Your task to perform on an android device: find photos in the google photos app Image 0: 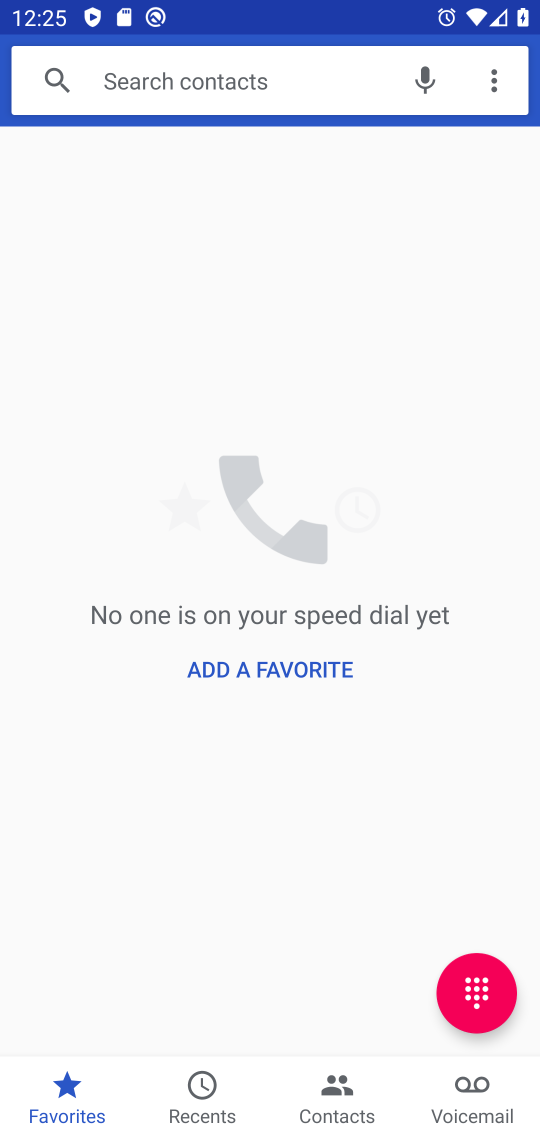
Step 0: press home button
Your task to perform on an android device: find photos in the google photos app Image 1: 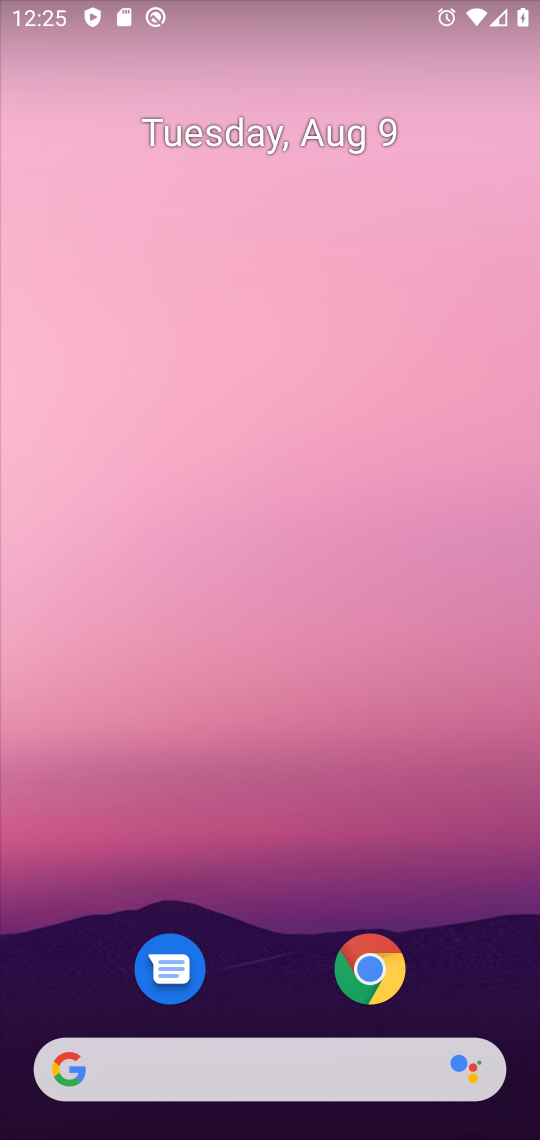
Step 1: drag from (190, 1003) to (214, 552)
Your task to perform on an android device: find photos in the google photos app Image 2: 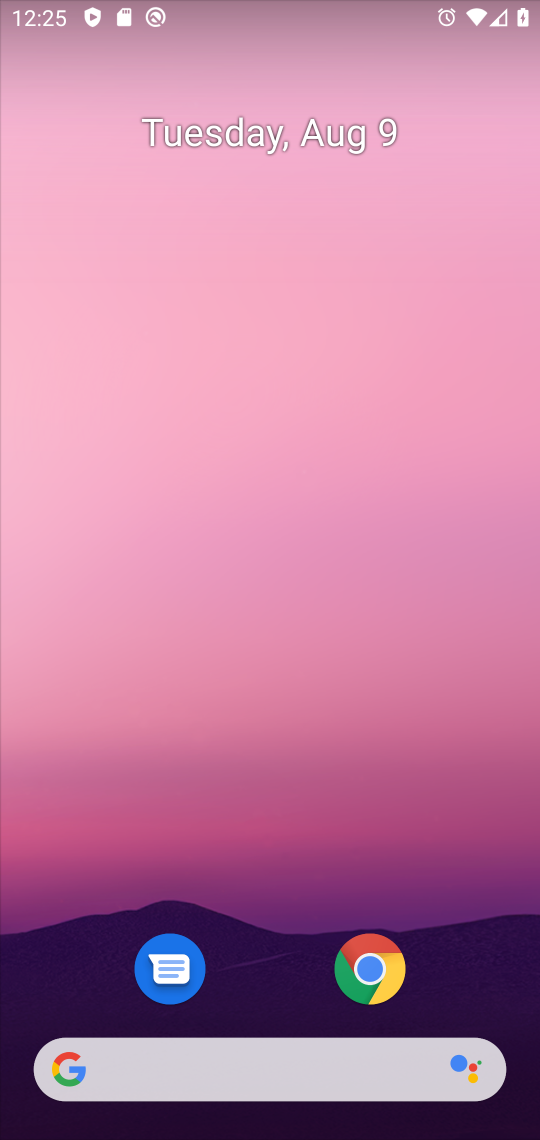
Step 2: drag from (274, 992) to (375, 522)
Your task to perform on an android device: find photos in the google photos app Image 3: 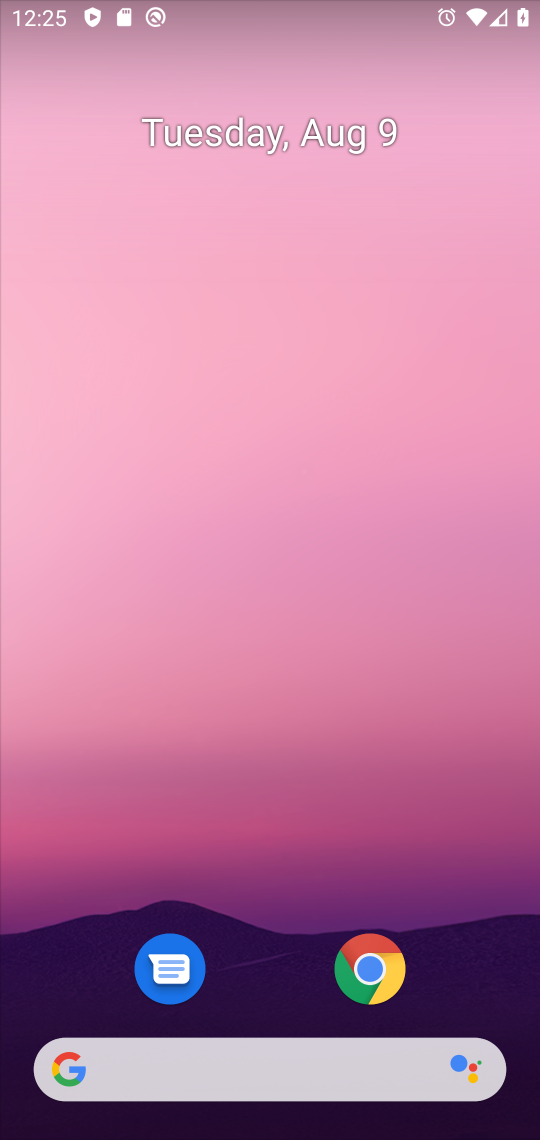
Step 3: drag from (238, 976) to (233, 685)
Your task to perform on an android device: find photos in the google photos app Image 4: 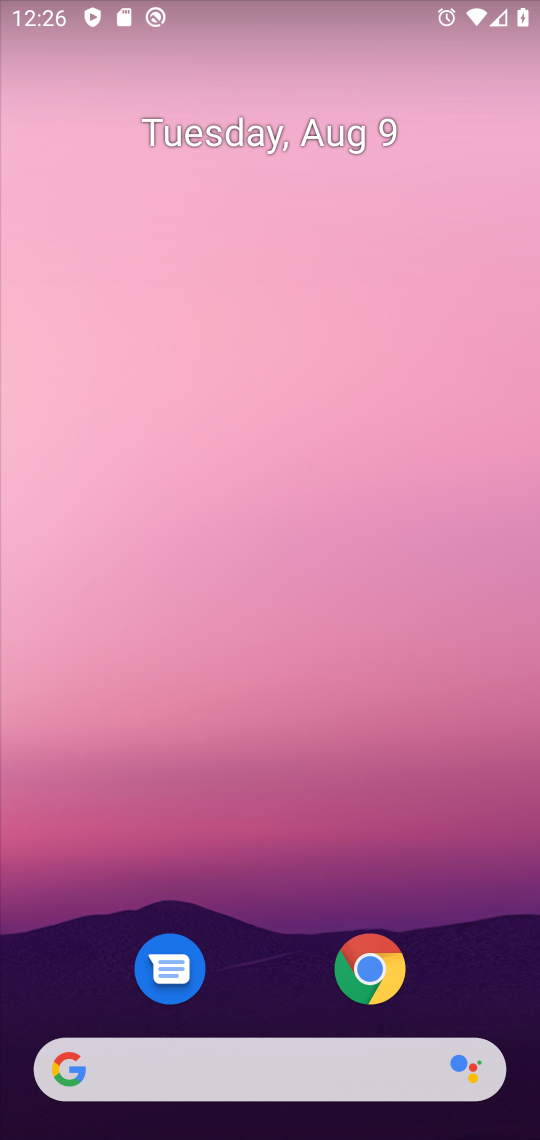
Step 4: drag from (324, 996) to (432, 351)
Your task to perform on an android device: find photos in the google photos app Image 5: 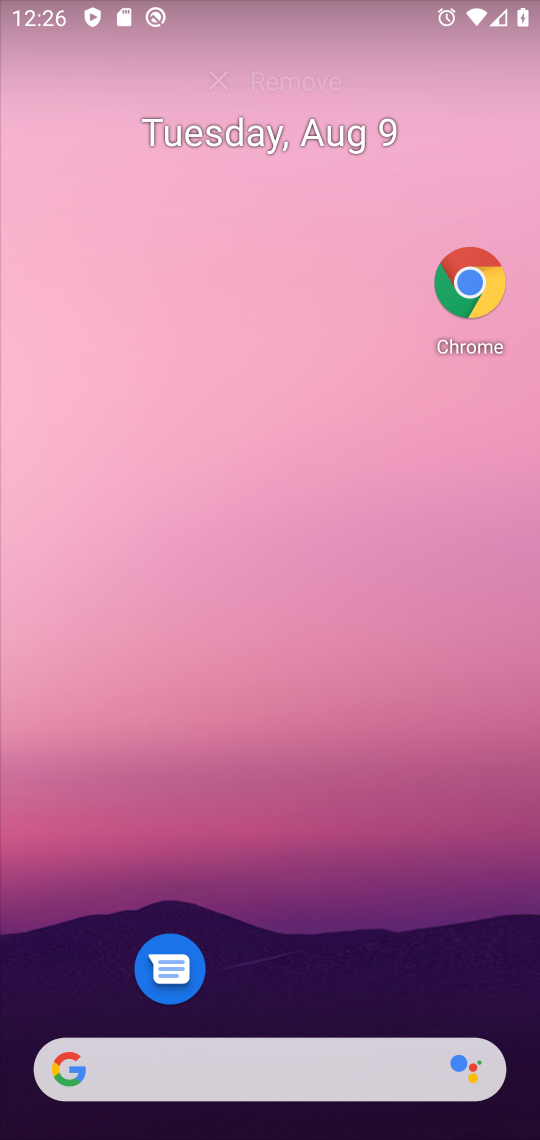
Step 5: drag from (299, 652) to (345, 380)
Your task to perform on an android device: find photos in the google photos app Image 6: 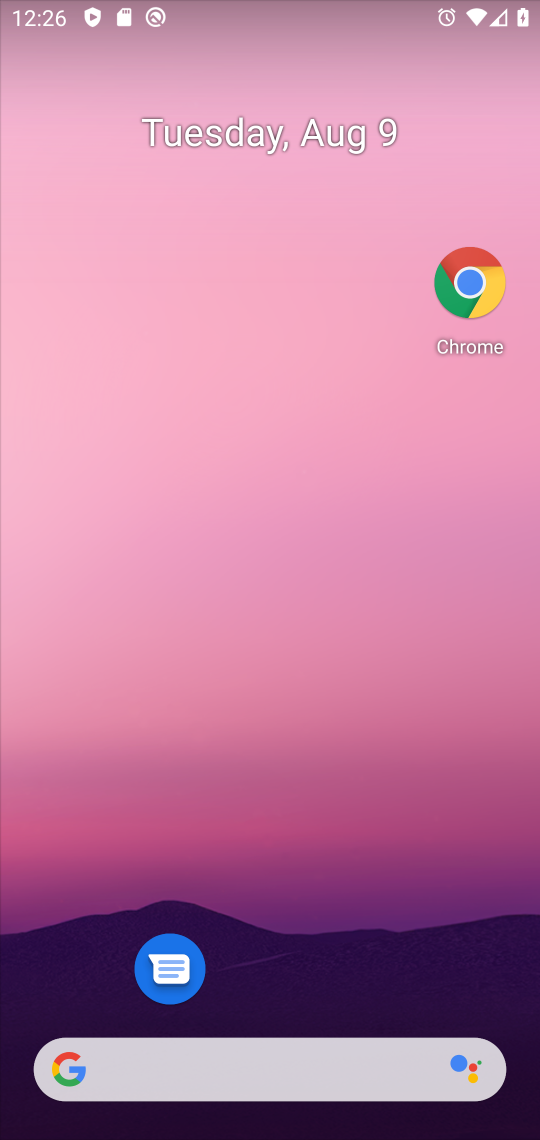
Step 6: drag from (287, 682) to (421, 7)
Your task to perform on an android device: find photos in the google photos app Image 7: 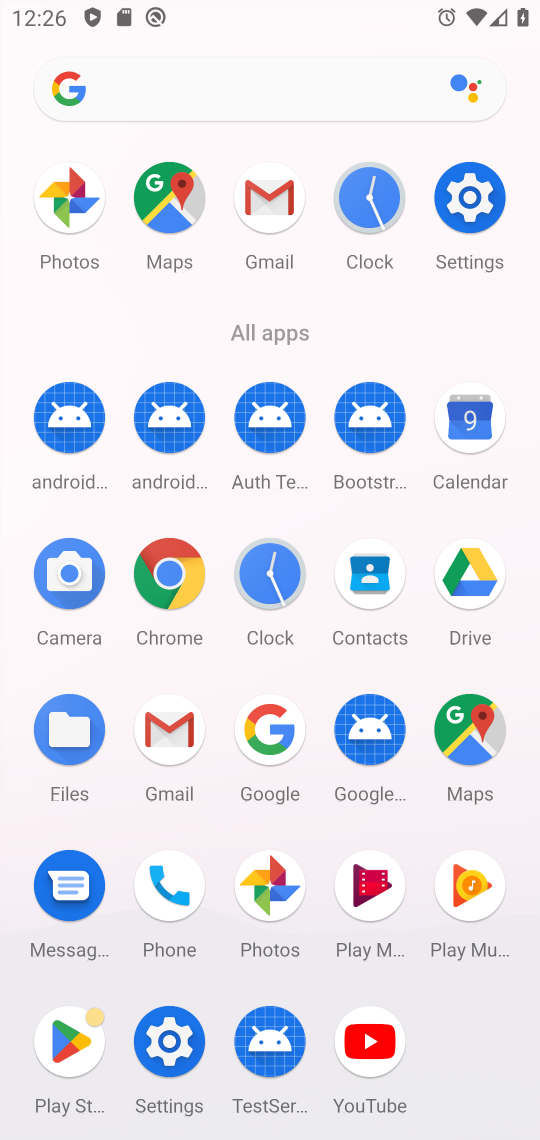
Step 7: click (267, 871)
Your task to perform on an android device: find photos in the google photos app Image 8: 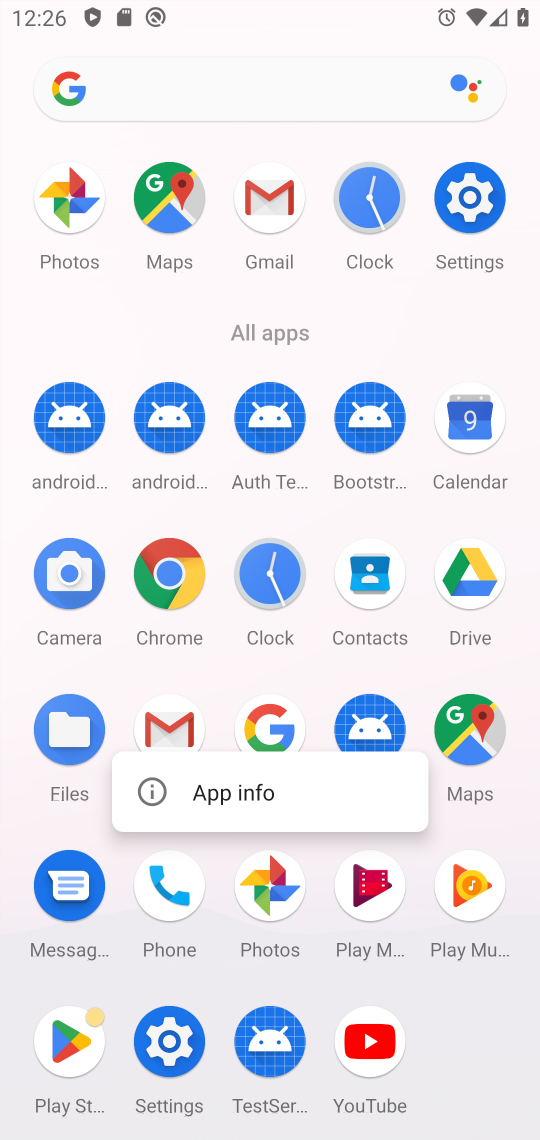
Step 8: click (248, 778)
Your task to perform on an android device: find photos in the google photos app Image 9: 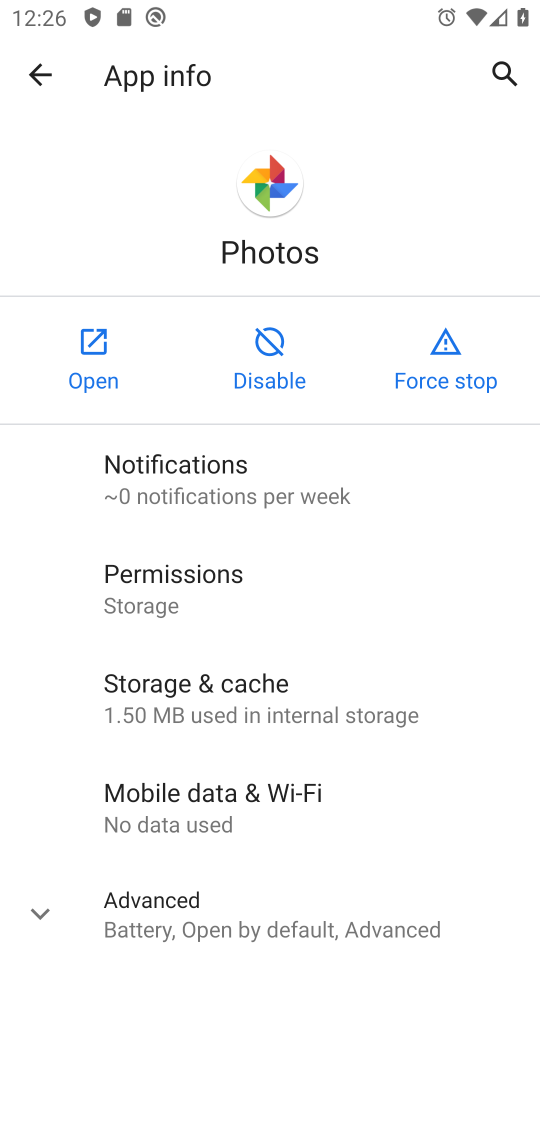
Step 9: click (82, 317)
Your task to perform on an android device: find photos in the google photos app Image 10: 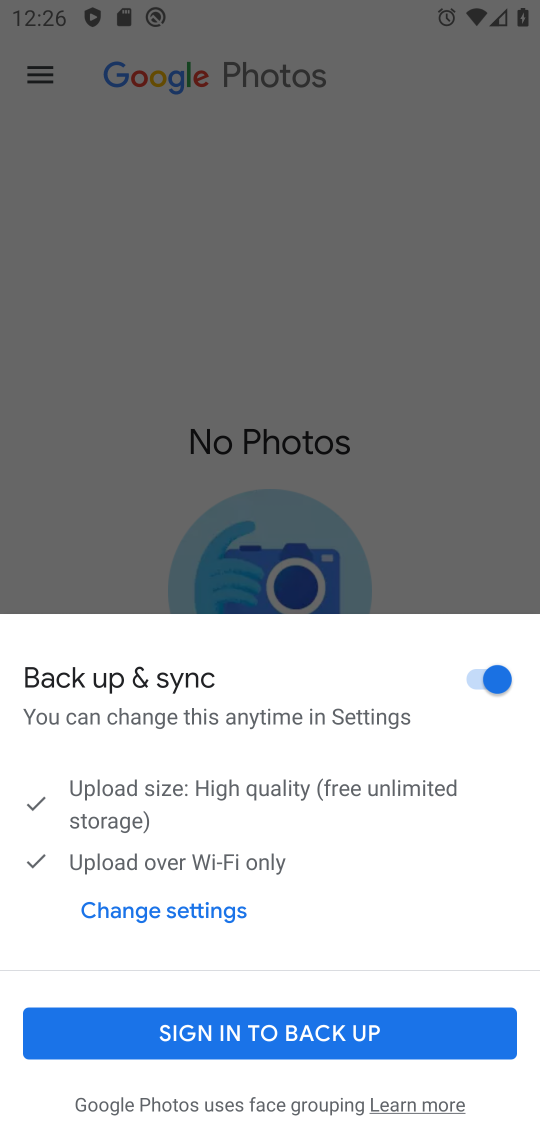
Step 10: click (263, 426)
Your task to perform on an android device: find photos in the google photos app Image 11: 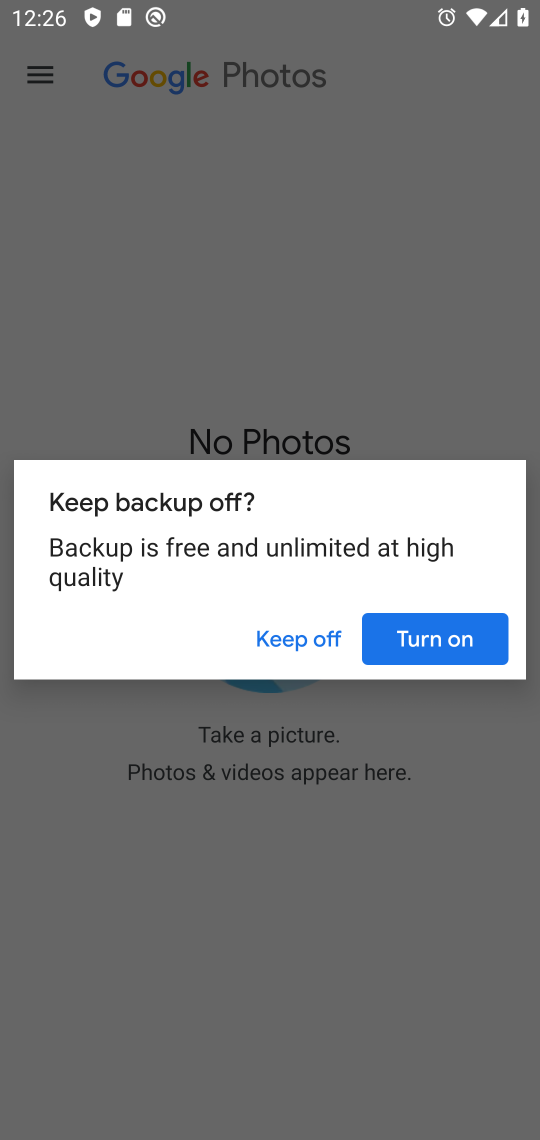
Step 11: click (312, 630)
Your task to perform on an android device: find photos in the google photos app Image 12: 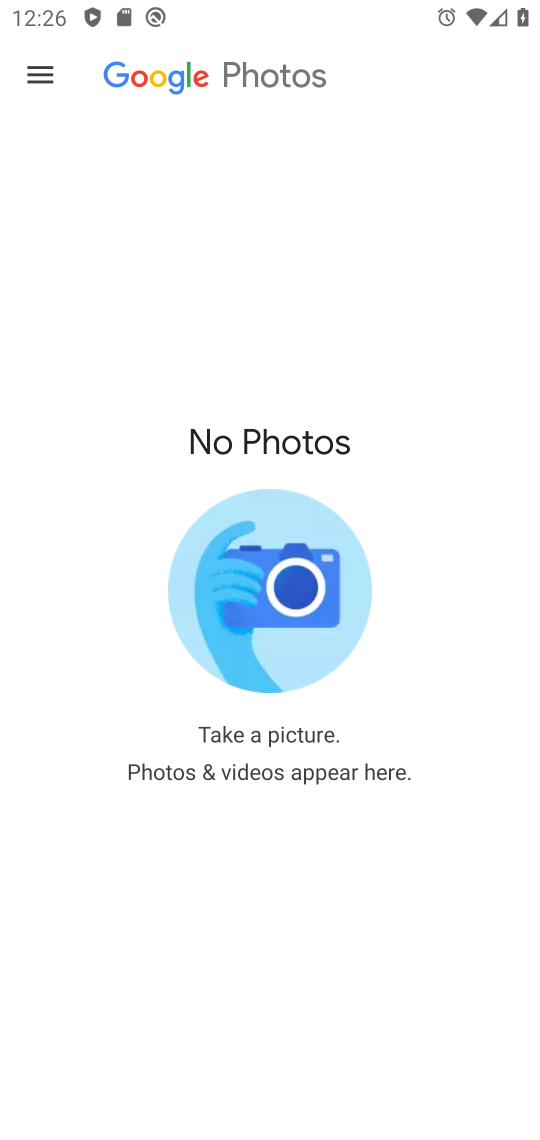
Step 12: task complete